Your task to perform on an android device: open sync settings in chrome Image 0: 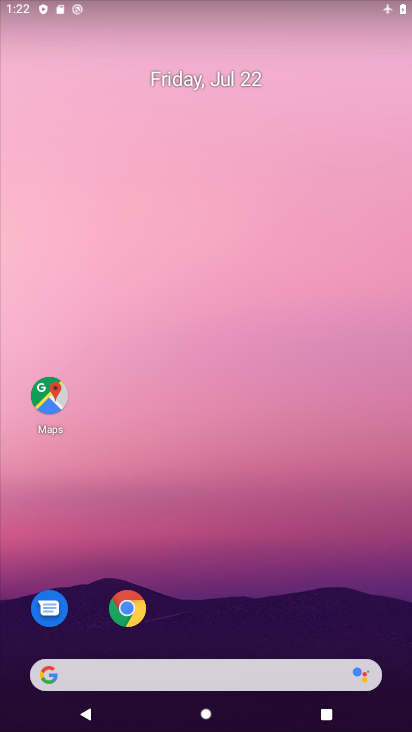
Step 0: click (129, 612)
Your task to perform on an android device: open sync settings in chrome Image 1: 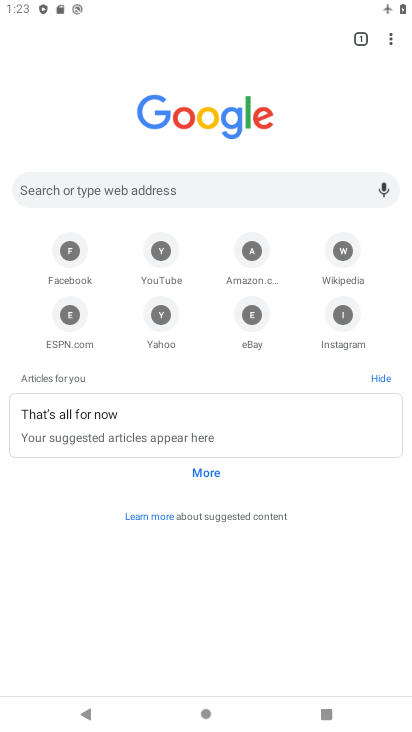
Step 1: click (391, 41)
Your task to perform on an android device: open sync settings in chrome Image 2: 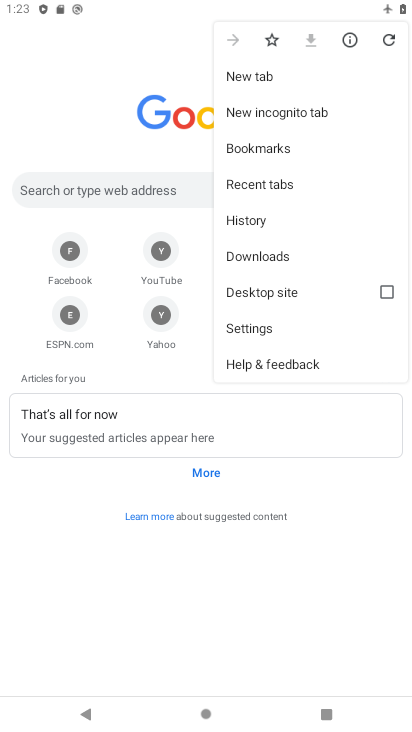
Step 2: click (246, 327)
Your task to perform on an android device: open sync settings in chrome Image 3: 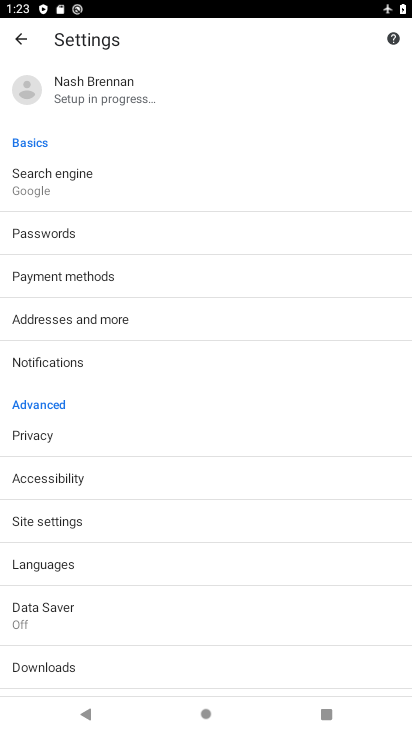
Step 3: click (69, 518)
Your task to perform on an android device: open sync settings in chrome Image 4: 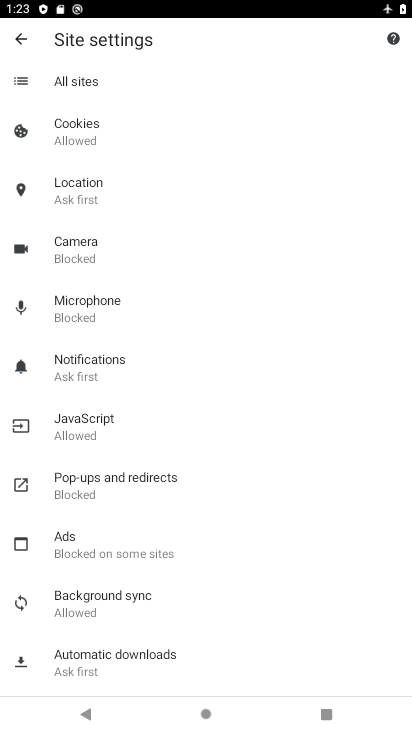
Step 4: click (78, 599)
Your task to perform on an android device: open sync settings in chrome Image 5: 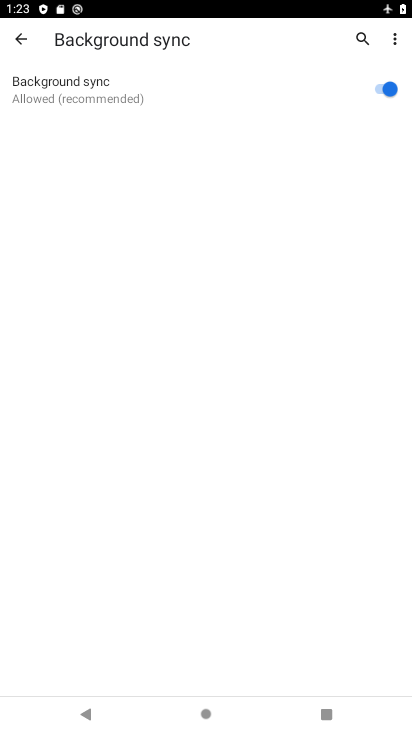
Step 5: task complete